Your task to perform on an android device: Open the phone app and click the voicemail tab. Image 0: 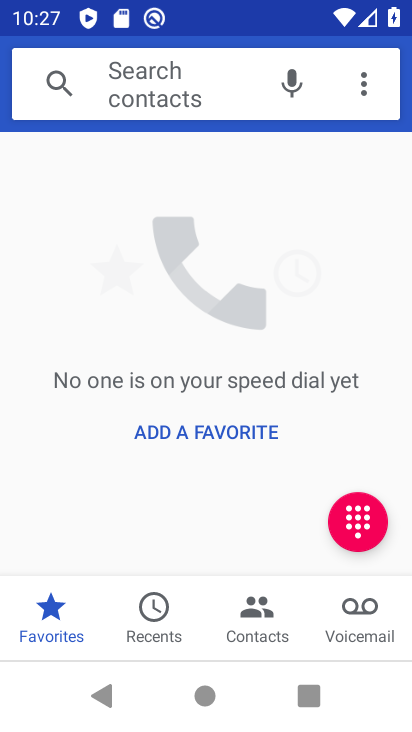
Step 0: press home button
Your task to perform on an android device: Open the phone app and click the voicemail tab. Image 1: 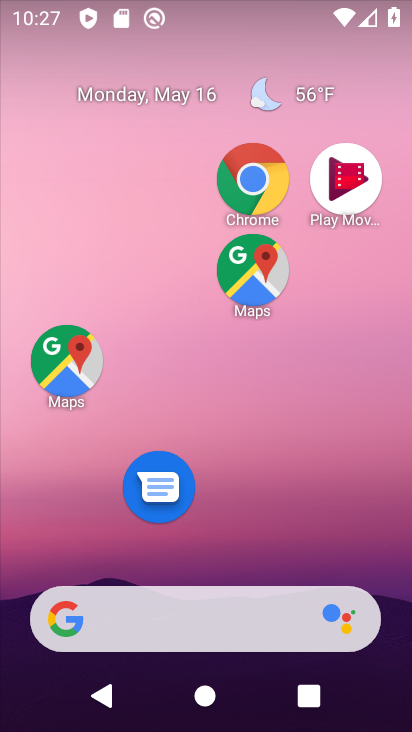
Step 1: drag from (302, 443) to (261, 6)
Your task to perform on an android device: Open the phone app and click the voicemail tab. Image 2: 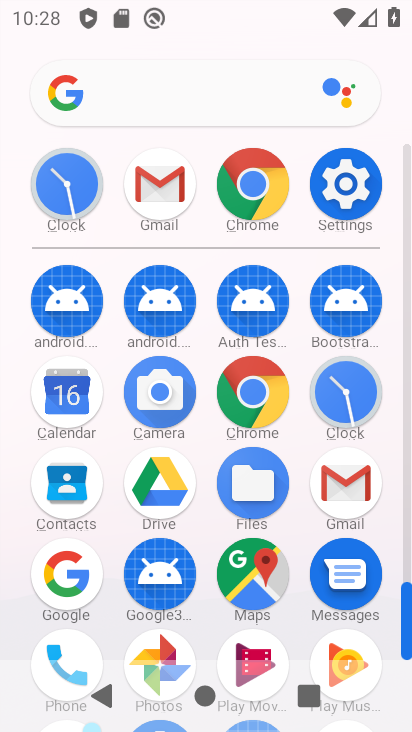
Step 2: click (77, 641)
Your task to perform on an android device: Open the phone app and click the voicemail tab. Image 3: 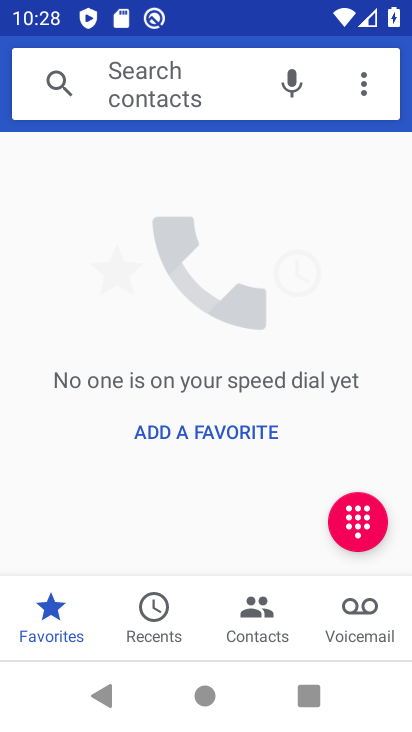
Step 3: press home button
Your task to perform on an android device: Open the phone app and click the voicemail tab. Image 4: 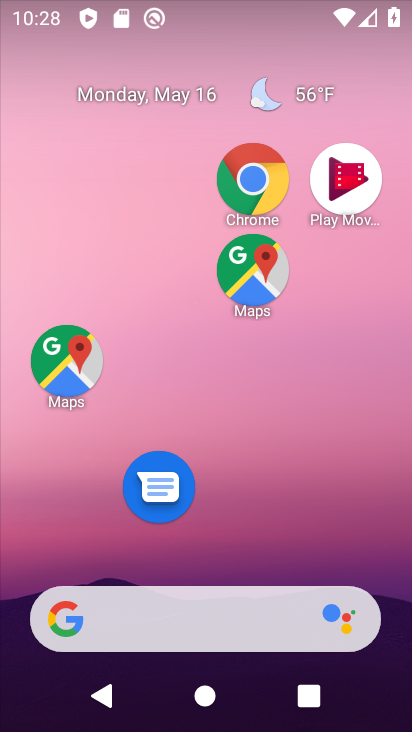
Step 4: drag from (214, 549) to (211, 176)
Your task to perform on an android device: Open the phone app and click the voicemail tab. Image 5: 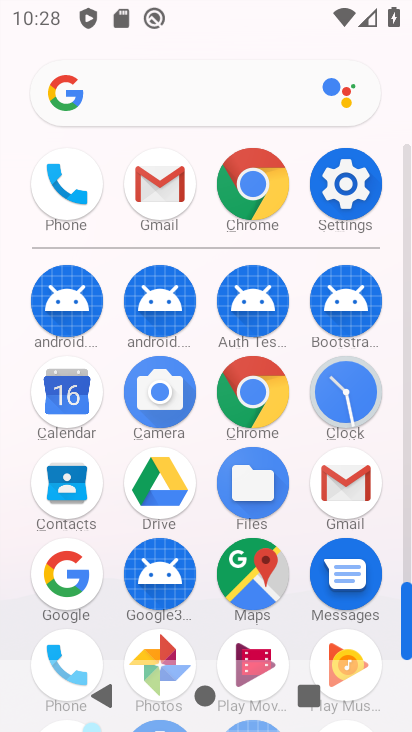
Step 5: click (77, 640)
Your task to perform on an android device: Open the phone app and click the voicemail tab. Image 6: 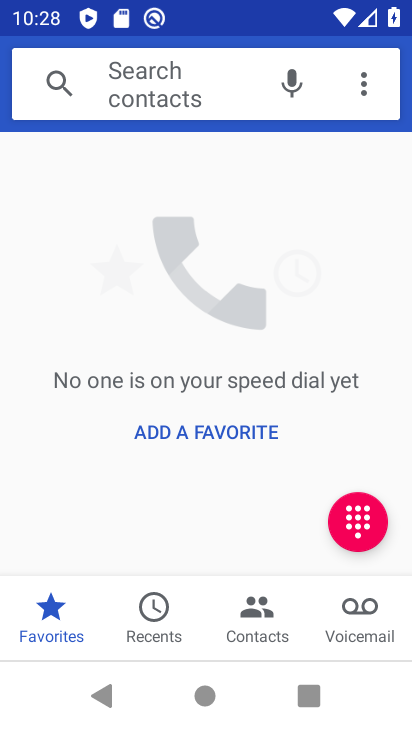
Step 6: click (378, 630)
Your task to perform on an android device: Open the phone app and click the voicemail tab. Image 7: 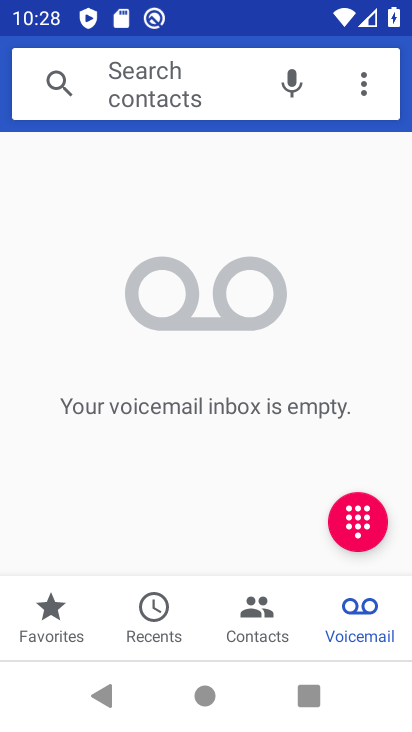
Step 7: task complete